Your task to perform on an android device: turn off notifications settings in the gmail app Image 0: 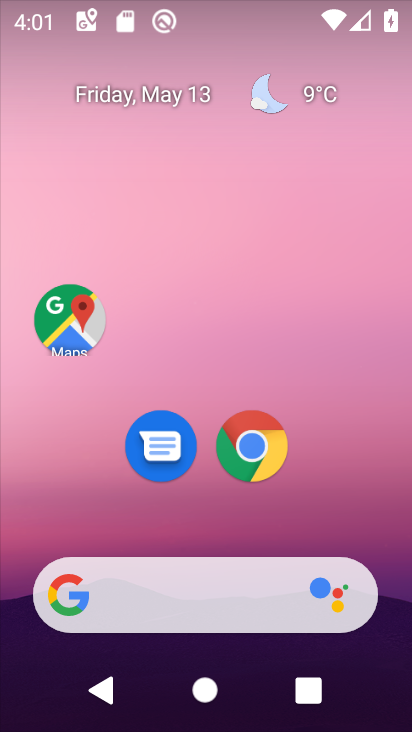
Step 0: drag from (228, 540) to (240, 40)
Your task to perform on an android device: turn off notifications settings in the gmail app Image 1: 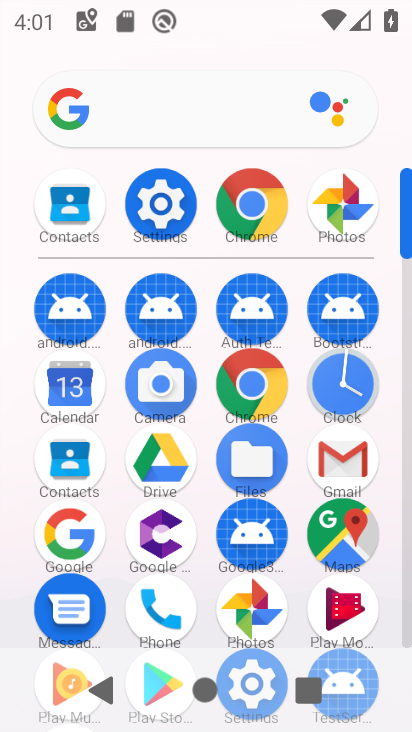
Step 1: click (340, 460)
Your task to perform on an android device: turn off notifications settings in the gmail app Image 2: 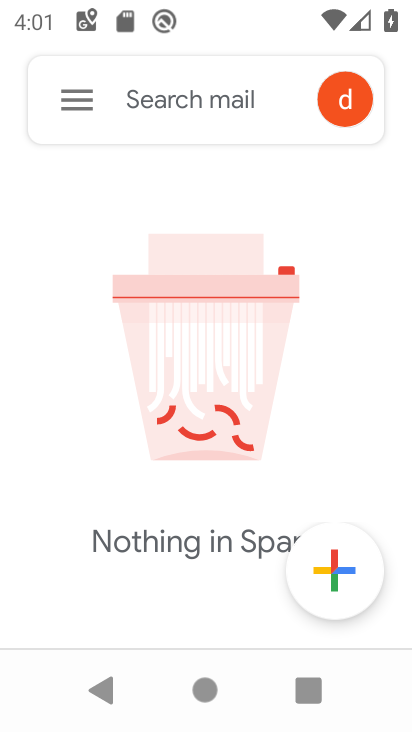
Step 2: click (76, 102)
Your task to perform on an android device: turn off notifications settings in the gmail app Image 3: 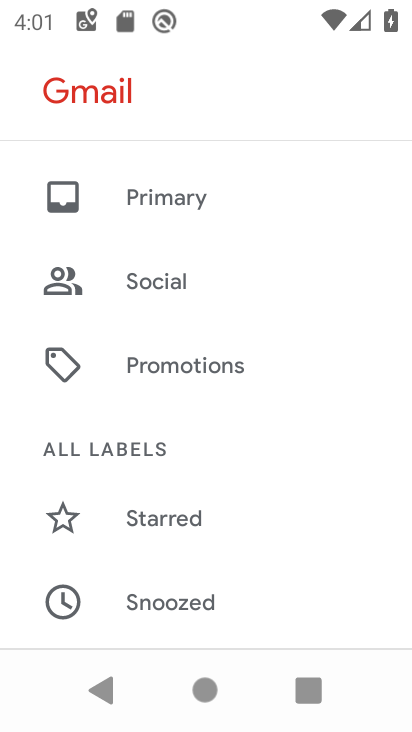
Step 3: drag from (126, 577) to (151, 229)
Your task to perform on an android device: turn off notifications settings in the gmail app Image 4: 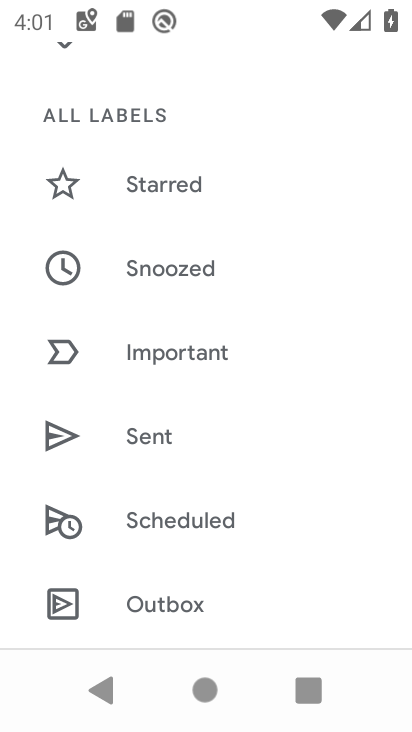
Step 4: drag from (151, 567) to (170, 158)
Your task to perform on an android device: turn off notifications settings in the gmail app Image 5: 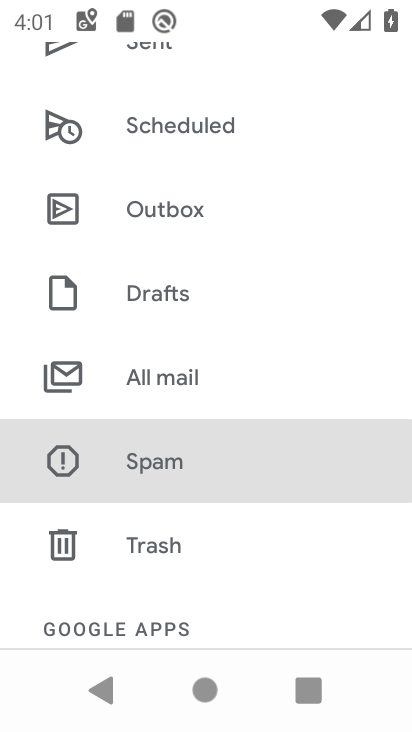
Step 5: drag from (158, 576) to (218, 174)
Your task to perform on an android device: turn off notifications settings in the gmail app Image 6: 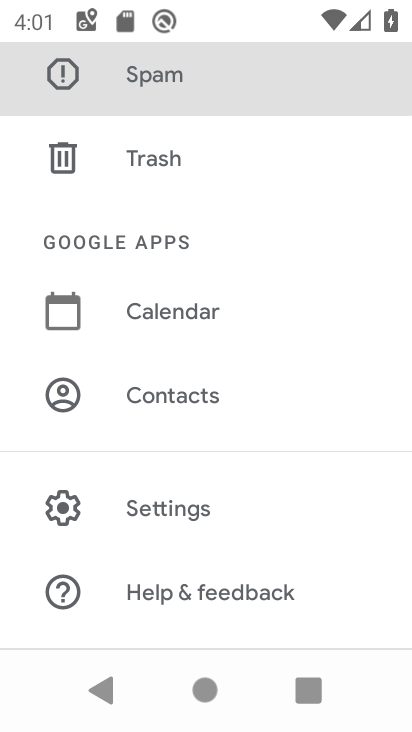
Step 6: click (169, 498)
Your task to perform on an android device: turn off notifications settings in the gmail app Image 7: 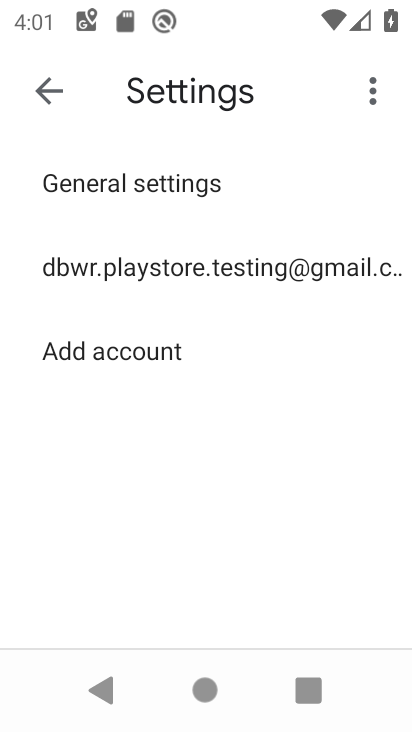
Step 7: click (102, 272)
Your task to perform on an android device: turn off notifications settings in the gmail app Image 8: 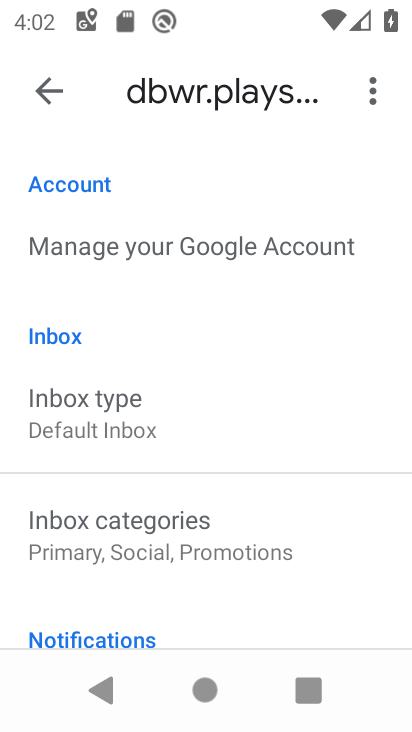
Step 8: drag from (127, 593) to (218, 169)
Your task to perform on an android device: turn off notifications settings in the gmail app Image 9: 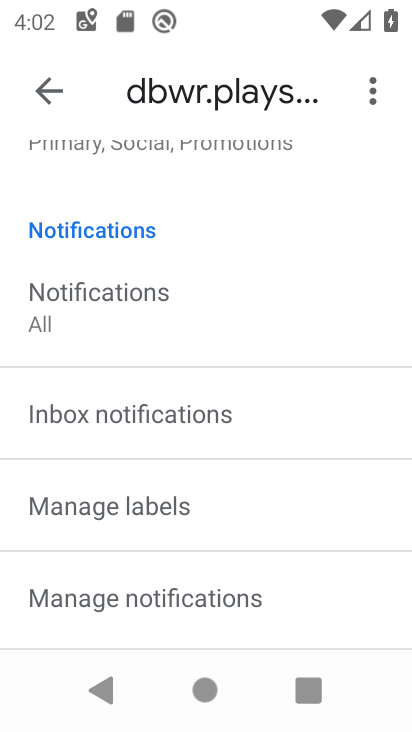
Step 9: click (127, 601)
Your task to perform on an android device: turn off notifications settings in the gmail app Image 10: 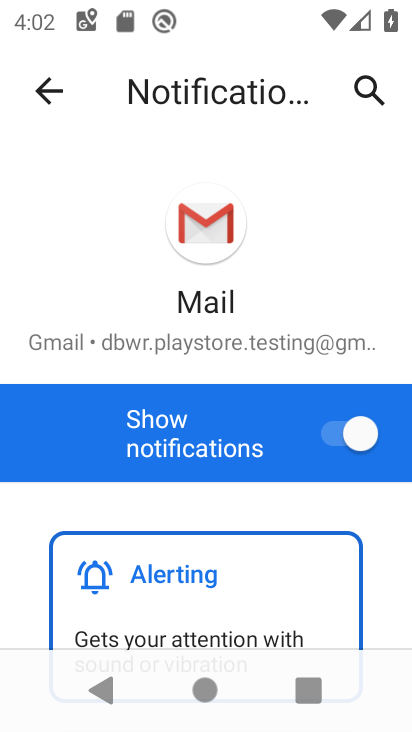
Step 10: click (321, 417)
Your task to perform on an android device: turn off notifications settings in the gmail app Image 11: 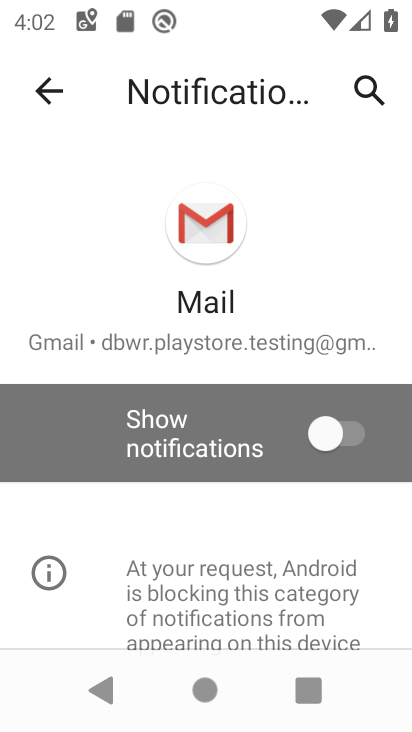
Step 11: task complete